Your task to perform on an android device: check google app version Image 0: 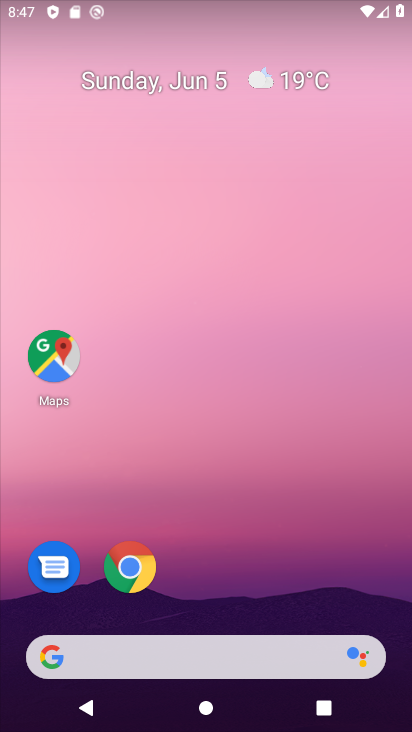
Step 0: drag from (187, 650) to (218, 110)
Your task to perform on an android device: check google app version Image 1: 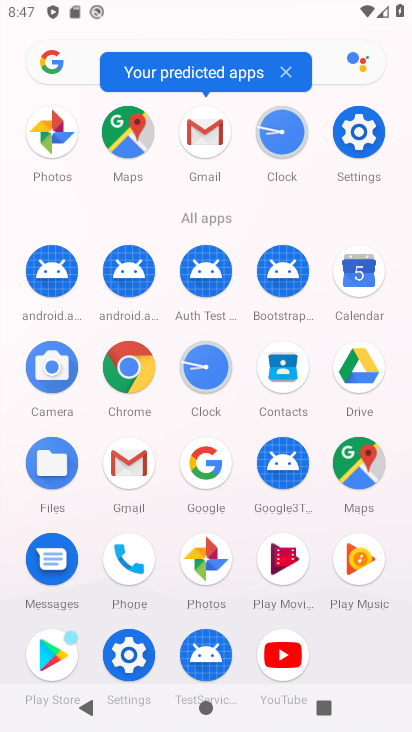
Step 1: click (142, 668)
Your task to perform on an android device: check google app version Image 2: 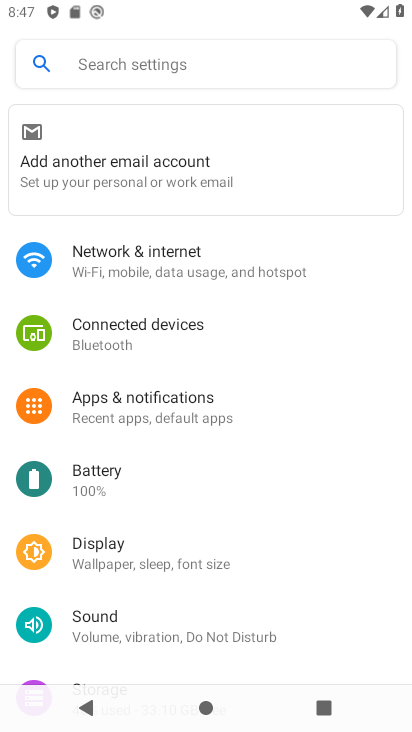
Step 2: click (190, 406)
Your task to perform on an android device: check google app version Image 3: 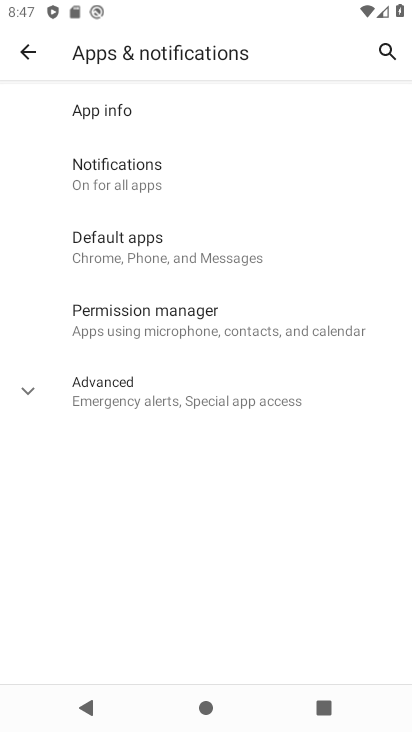
Step 3: click (178, 120)
Your task to perform on an android device: check google app version Image 4: 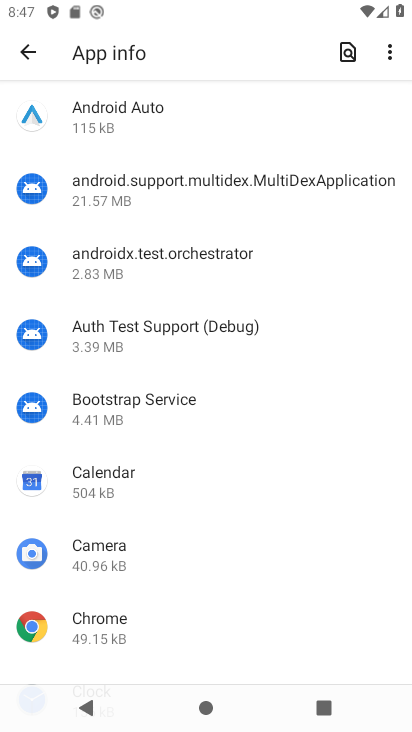
Step 4: drag from (151, 587) to (256, 39)
Your task to perform on an android device: check google app version Image 5: 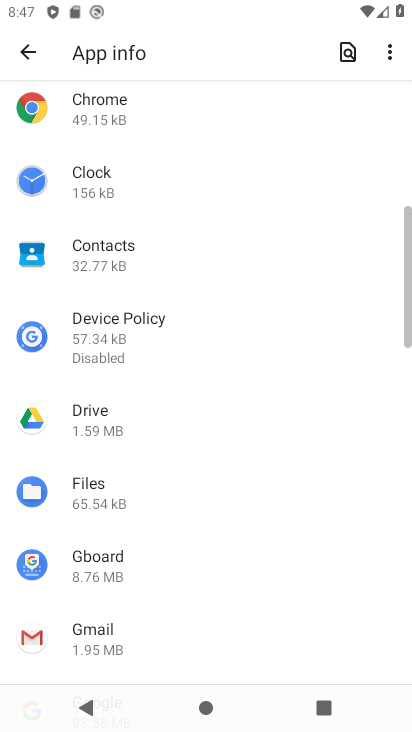
Step 5: drag from (171, 587) to (260, 151)
Your task to perform on an android device: check google app version Image 6: 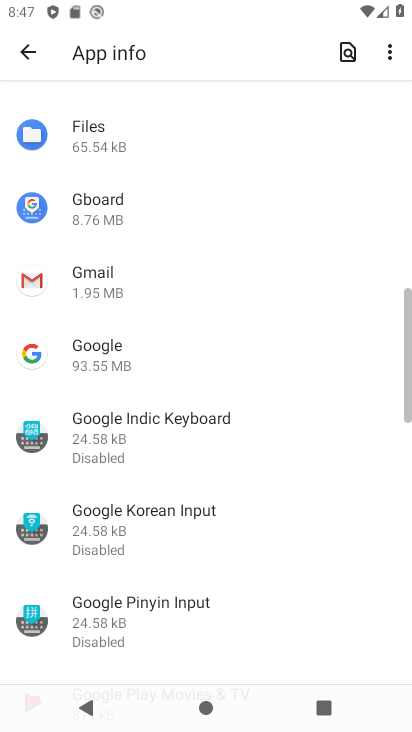
Step 6: drag from (134, 646) to (247, 130)
Your task to perform on an android device: check google app version Image 7: 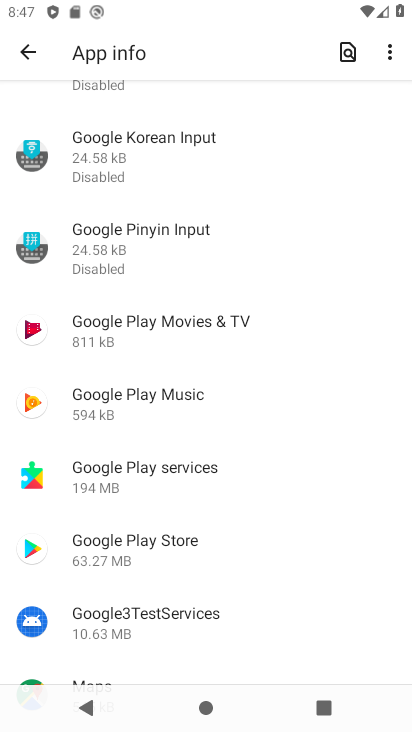
Step 7: drag from (108, 651) to (152, 631)
Your task to perform on an android device: check google app version Image 8: 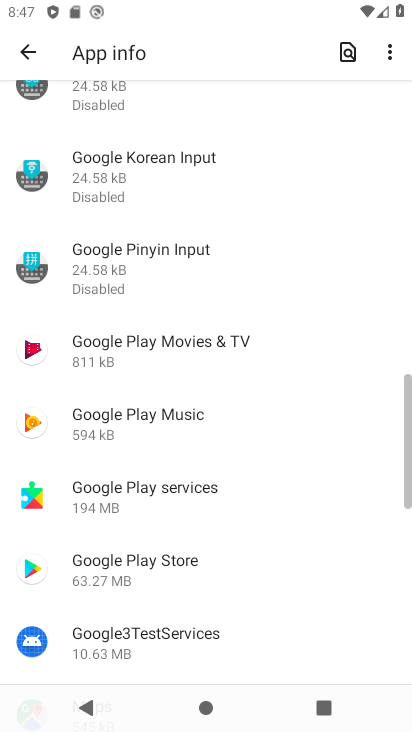
Step 8: drag from (201, 349) to (198, 546)
Your task to perform on an android device: check google app version Image 9: 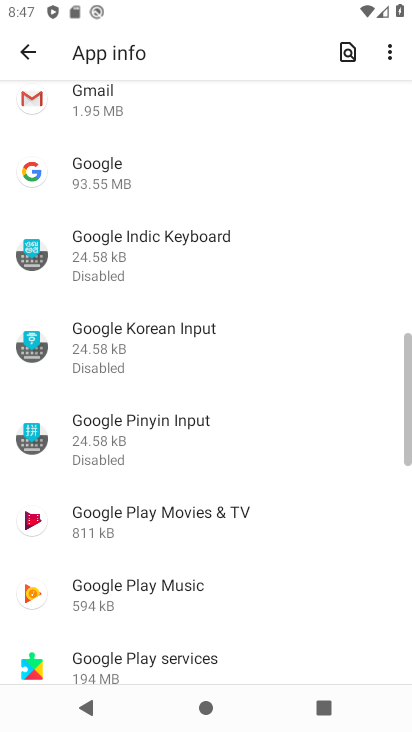
Step 9: click (160, 191)
Your task to perform on an android device: check google app version Image 10: 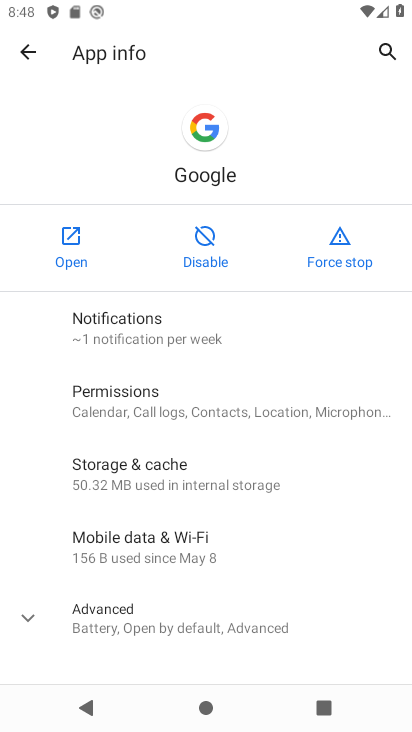
Step 10: drag from (136, 609) to (253, 198)
Your task to perform on an android device: check google app version Image 11: 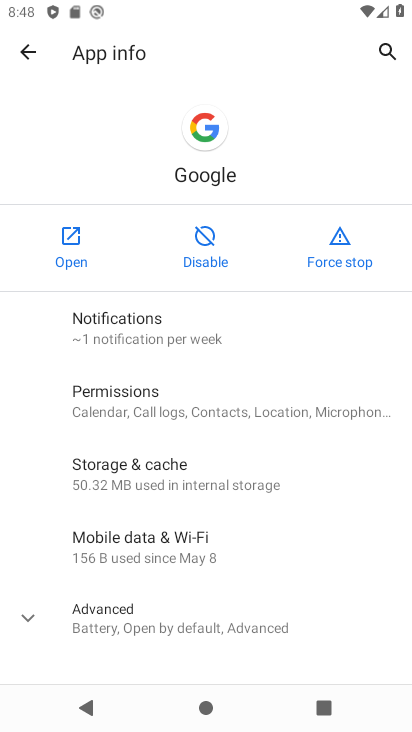
Step 11: drag from (165, 512) to (234, 196)
Your task to perform on an android device: check google app version Image 12: 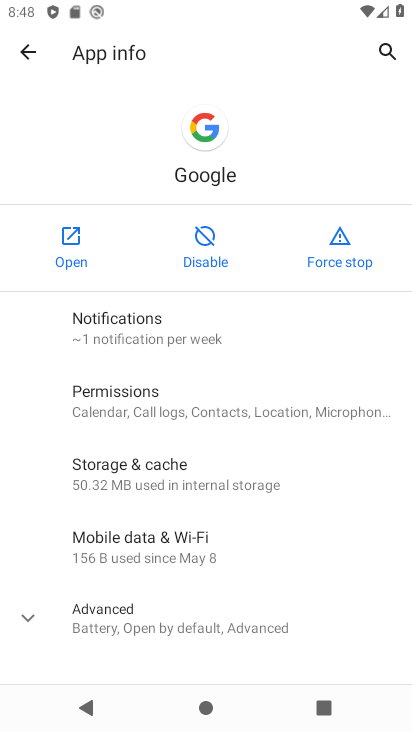
Step 12: click (163, 621)
Your task to perform on an android device: check google app version Image 13: 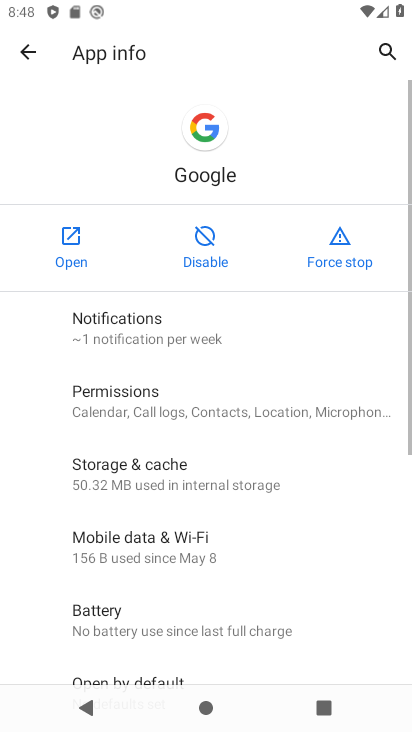
Step 13: task complete